Your task to perform on an android device: empty trash in the gmail app Image 0: 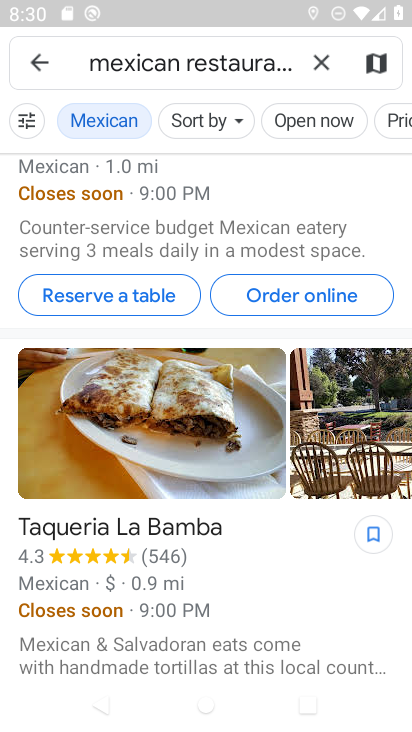
Step 0: press home button
Your task to perform on an android device: empty trash in the gmail app Image 1: 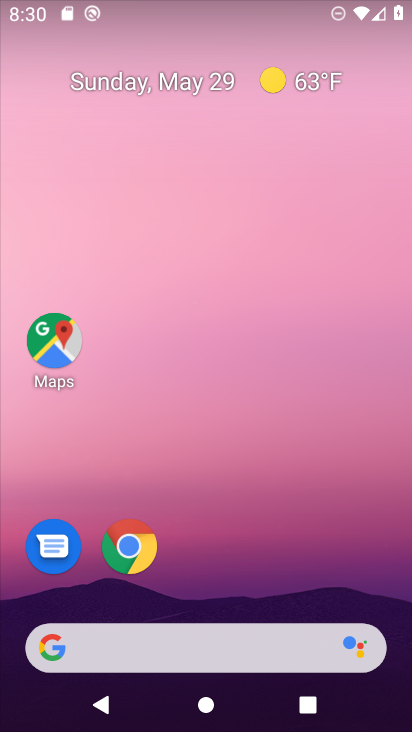
Step 1: drag from (157, 654) to (309, 80)
Your task to perform on an android device: empty trash in the gmail app Image 2: 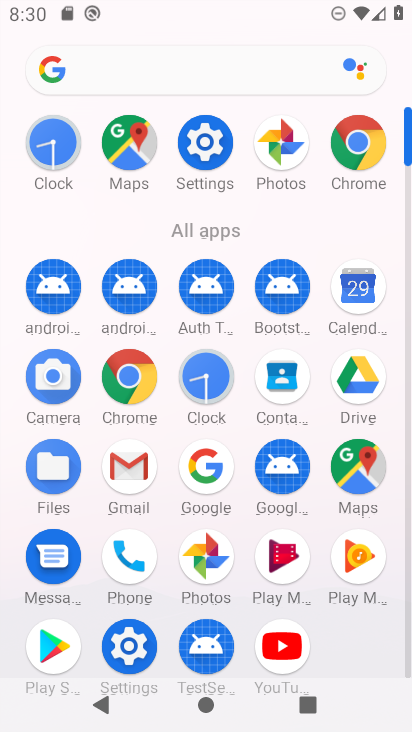
Step 2: click (128, 476)
Your task to perform on an android device: empty trash in the gmail app Image 3: 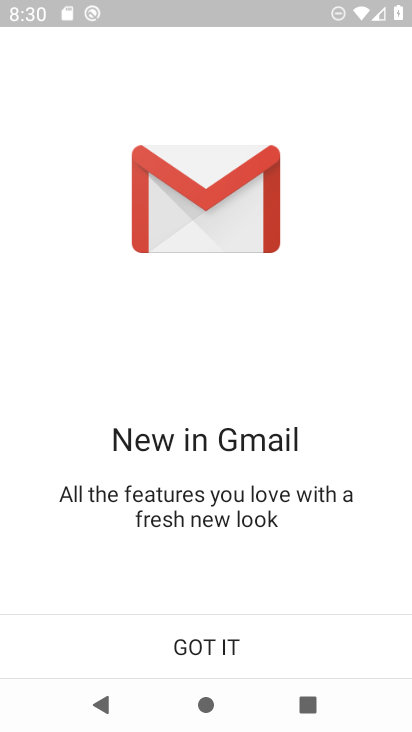
Step 3: click (196, 652)
Your task to perform on an android device: empty trash in the gmail app Image 4: 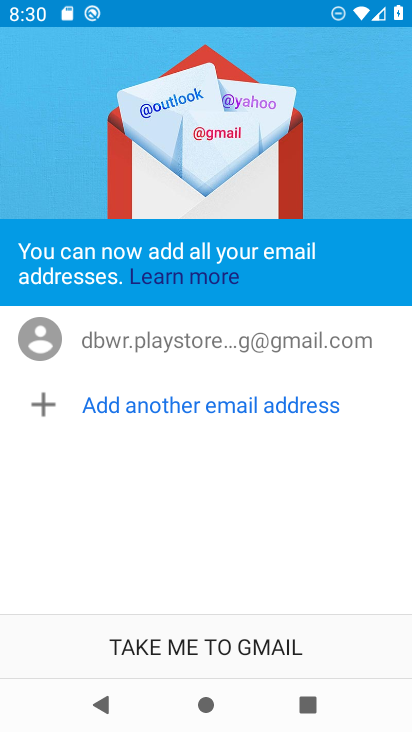
Step 4: click (200, 648)
Your task to perform on an android device: empty trash in the gmail app Image 5: 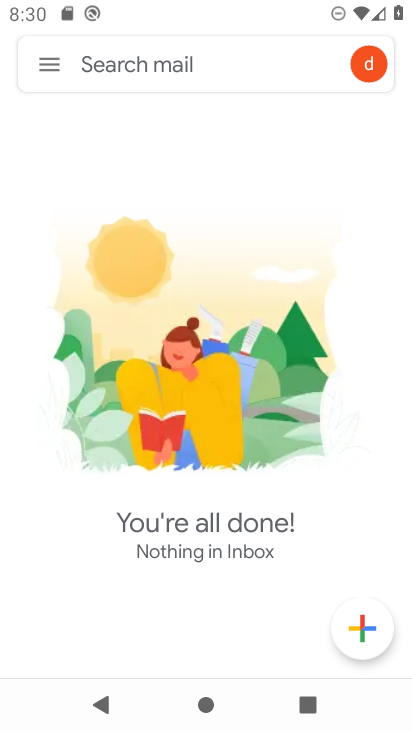
Step 5: click (45, 67)
Your task to perform on an android device: empty trash in the gmail app Image 6: 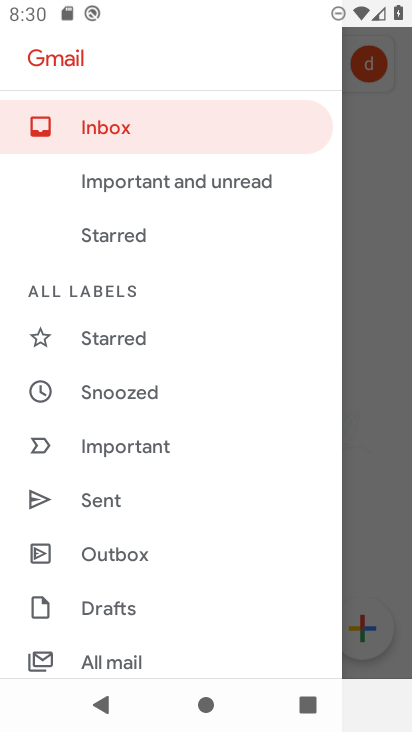
Step 6: drag from (254, 501) to (327, 143)
Your task to perform on an android device: empty trash in the gmail app Image 7: 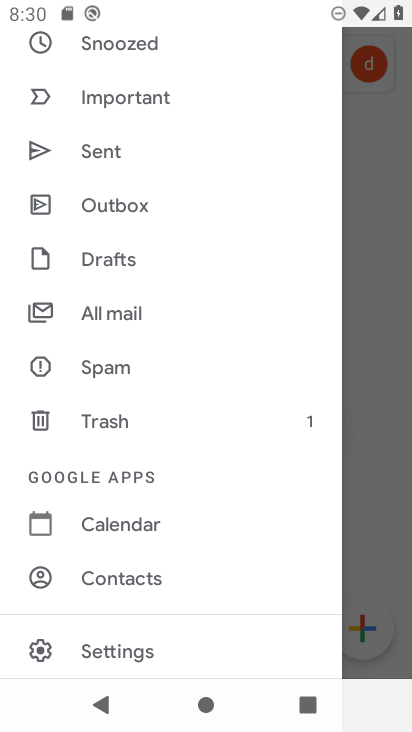
Step 7: click (101, 416)
Your task to perform on an android device: empty trash in the gmail app Image 8: 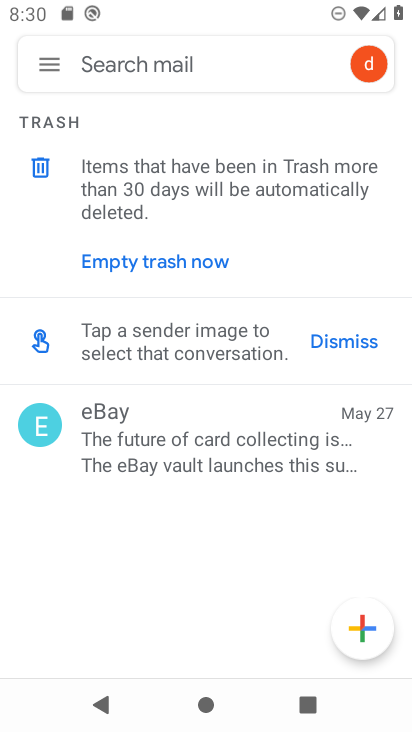
Step 8: click (182, 257)
Your task to perform on an android device: empty trash in the gmail app Image 9: 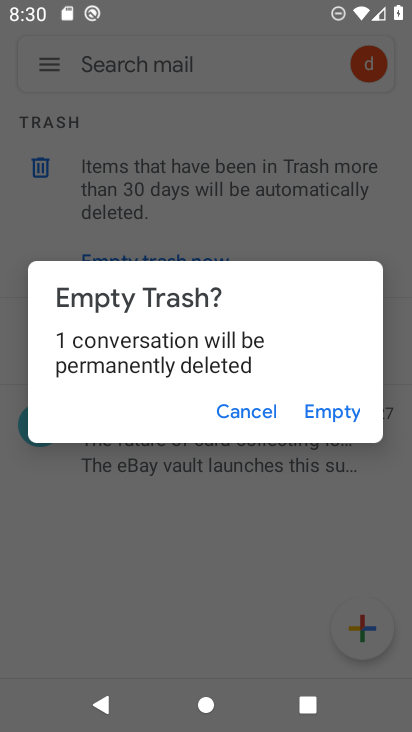
Step 9: click (334, 415)
Your task to perform on an android device: empty trash in the gmail app Image 10: 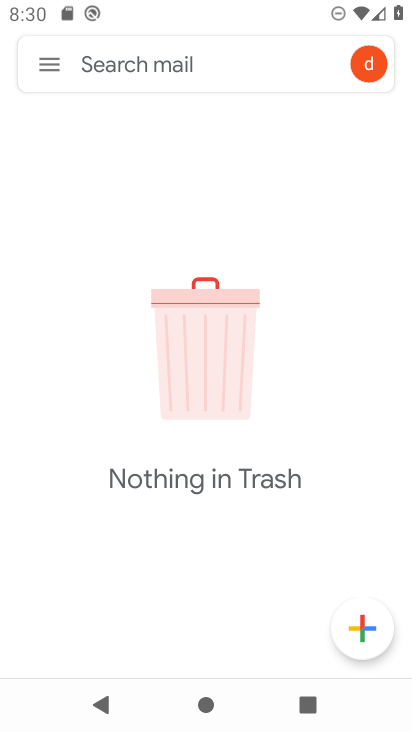
Step 10: task complete